Your task to perform on an android device: change notification settings in the gmail app Image 0: 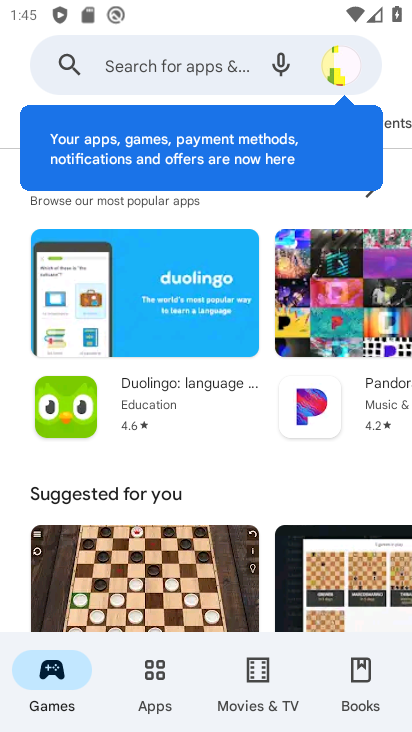
Step 0: press home button
Your task to perform on an android device: change notification settings in the gmail app Image 1: 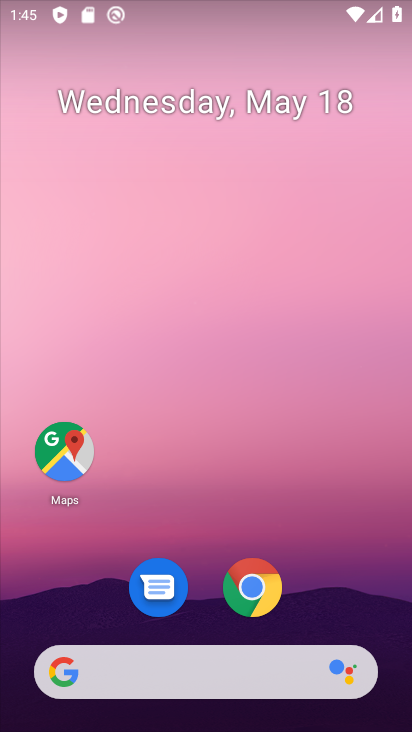
Step 1: drag from (346, 496) to (318, 24)
Your task to perform on an android device: change notification settings in the gmail app Image 2: 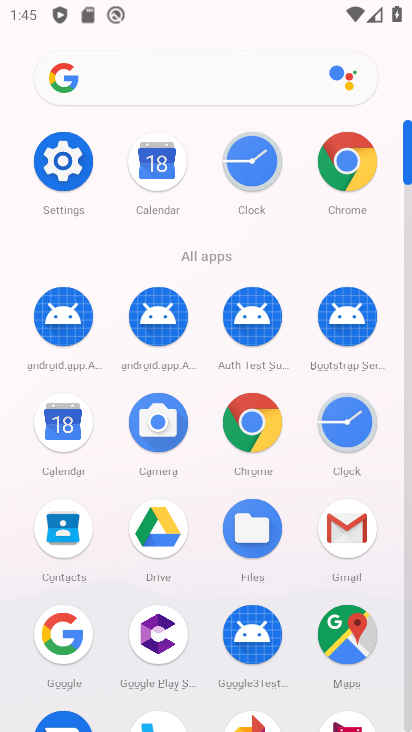
Step 2: click (338, 536)
Your task to perform on an android device: change notification settings in the gmail app Image 3: 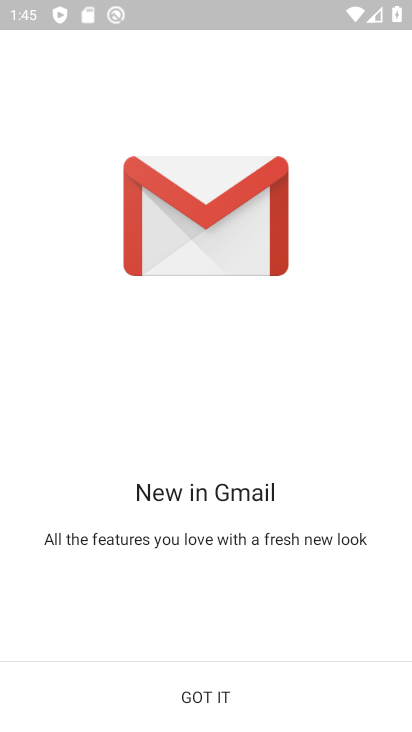
Step 3: click (217, 707)
Your task to perform on an android device: change notification settings in the gmail app Image 4: 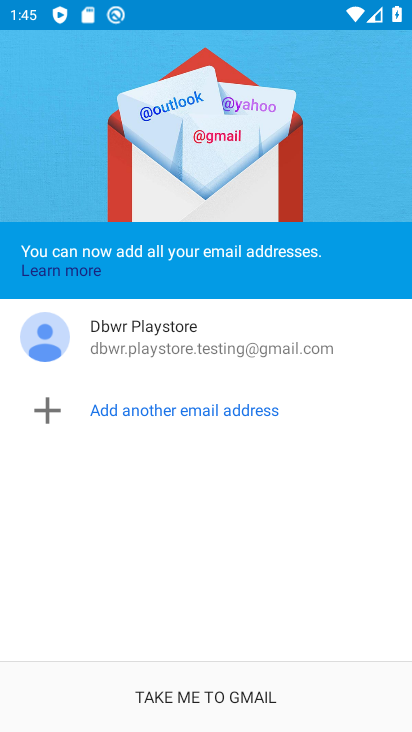
Step 4: click (217, 707)
Your task to perform on an android device: change notification settings in the gmail app Image 5: 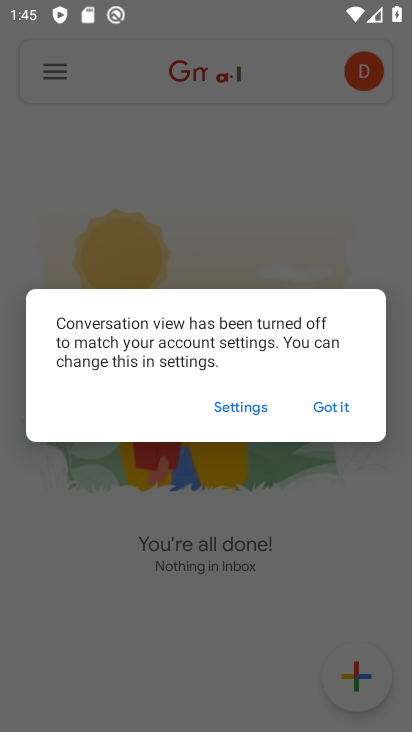
Step 5: click (343, 404)
Your task to perform on an android device: change notification settings in the gmail app Image 6: 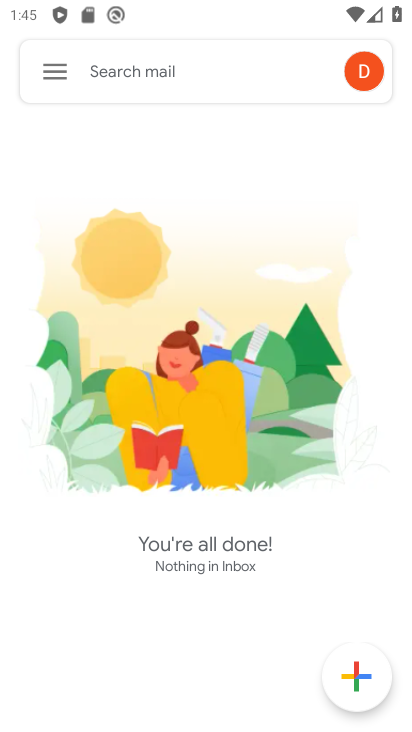
Step 6: click (45, 76)
Your task to perform on an android device: change notification settings in the gmail app Image 7: 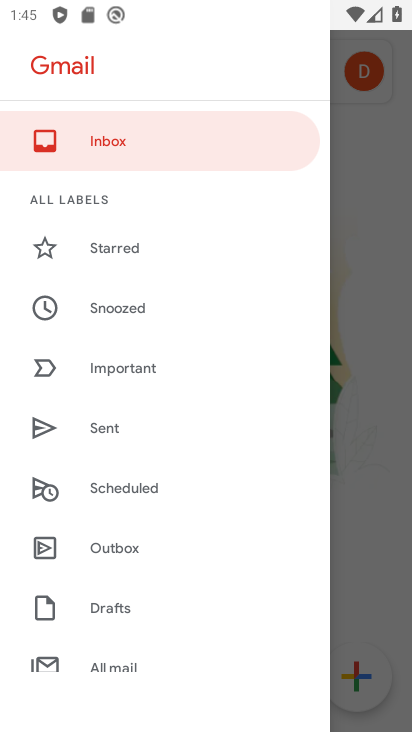
Step 7: drag from (193, 665) to (148, 136)
Your task to perform on an android device: change notification settings in the gmail app Image 8: 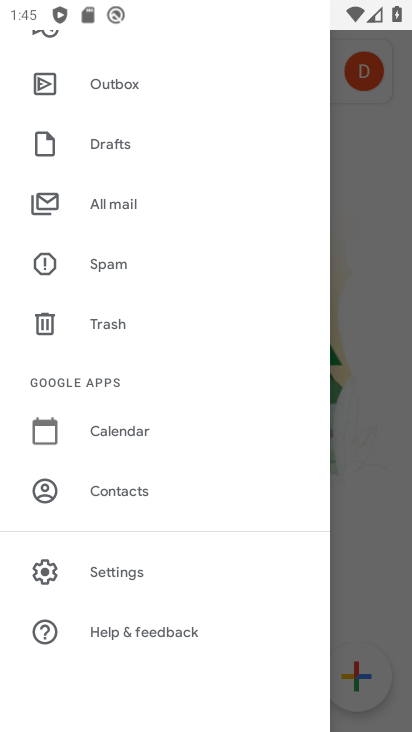
Step 8: click (92, 565)
Your task to perform on an android device: change notification settings in the gmail app Image 9: 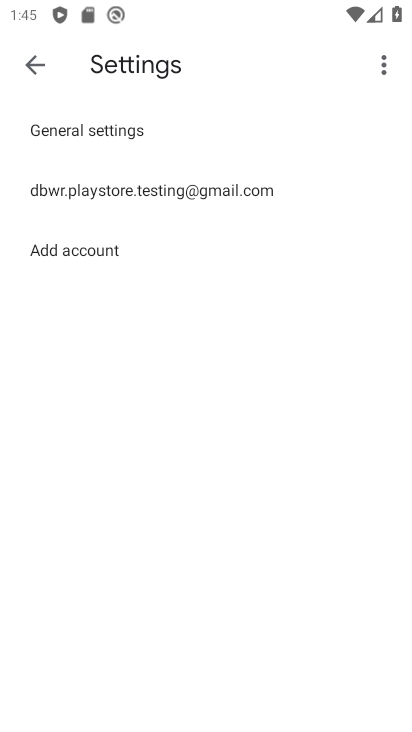
Step 9: click (95, 125)
Your task to perform on an android device: change notification settings in the gmail app Image 10: 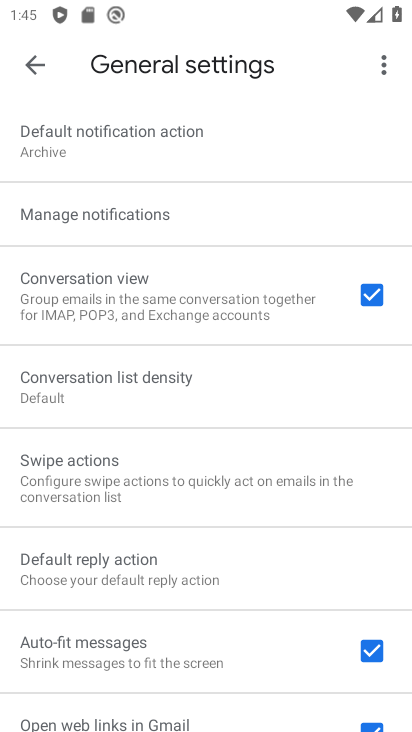
Step 10: click (67, 133)
Your task to perform on an android device: change notification settings in the gmail app Image 11: 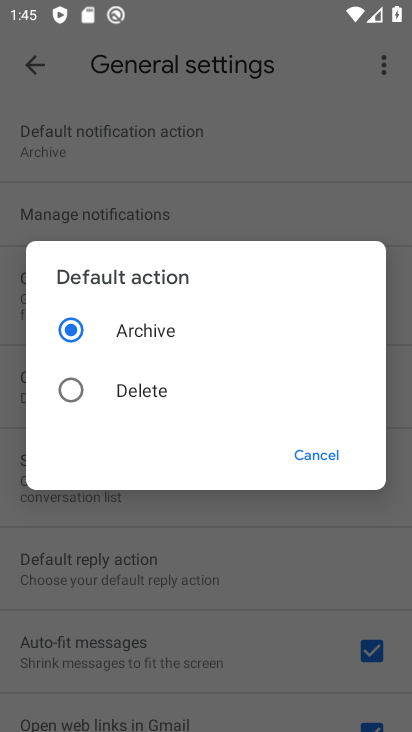
Step 11: click (315, 450)
Your task to perform on an android device: change notification settings in the gmail app Image 12: 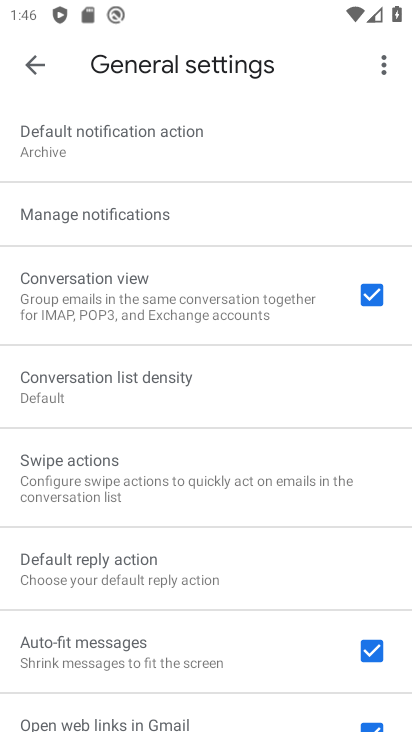
Step 12: click (75, 219)
Your task to perform on an android device: change notification settings in the gmail app Image 13: 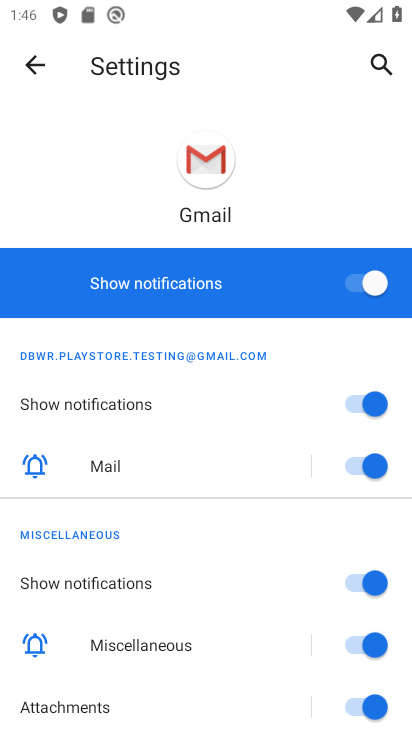
Step 13: click (385, 283)
Your task to perform on an android device: change notification settings in the gmail app Image 14: 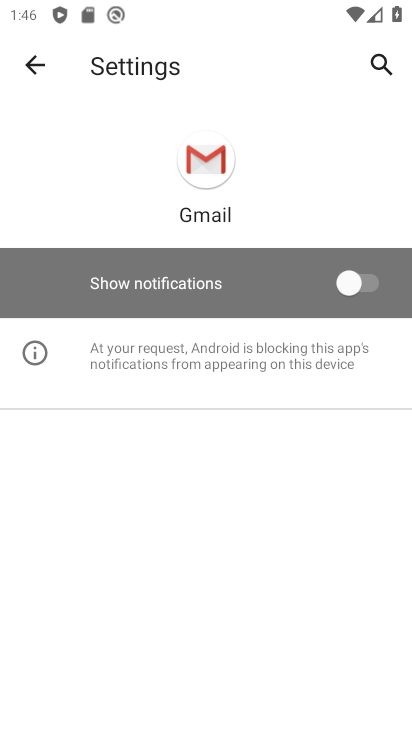
Step 14: task complete